Your task to perform on an android device: Search for sushi restaurants on Maps Image 0: 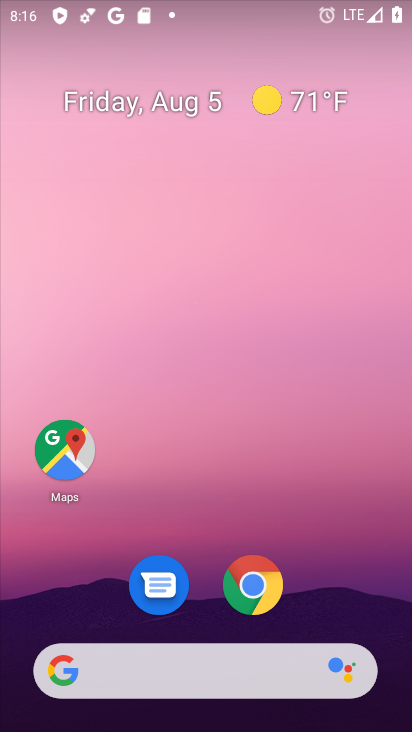
Step 0: click (65, 450)
Your task to perform on an android device: Search for sushi restaurants on Maps Image 1: 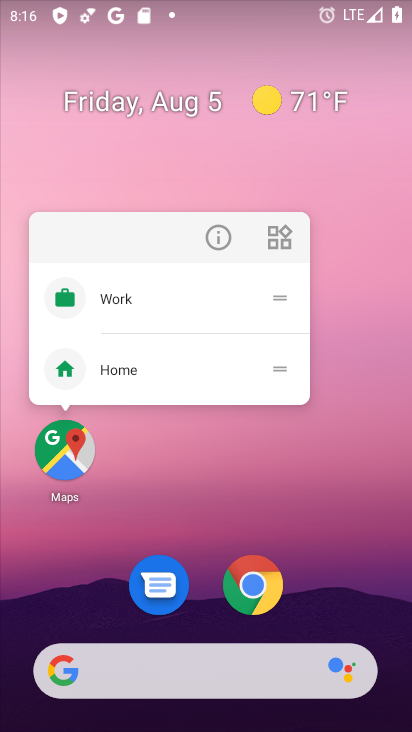
Step 1: click (61, 444)
Your task to perform on an android device: Search for sushi restaurants on Maps Image 2: 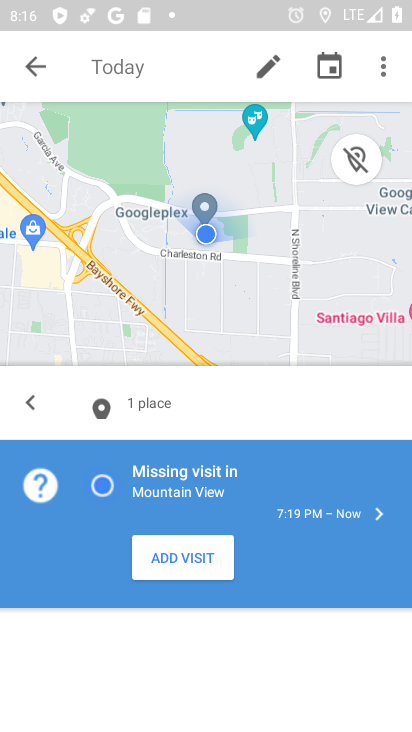
Step 2: click (38, 67)
Your task to perform on an android device: Search for sushi restaurants on Maps Image 3: 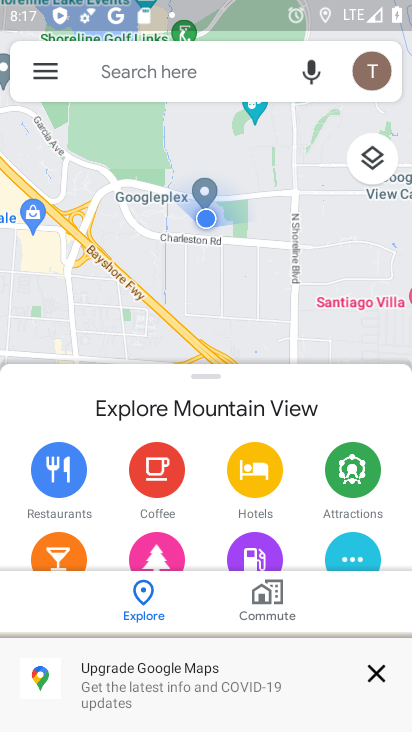
Step 3: click (159, 65)
Your task to perform on an android device: Search for sushi restaurants on Maps Image 4: 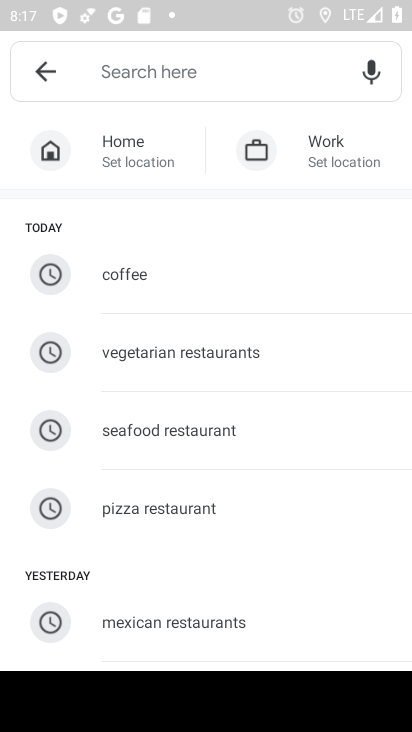
Step 4: drag from (208, 542) to (292, 254)
Your task to perform on an android device: Search for sushi restaurants on Maps Image 5: 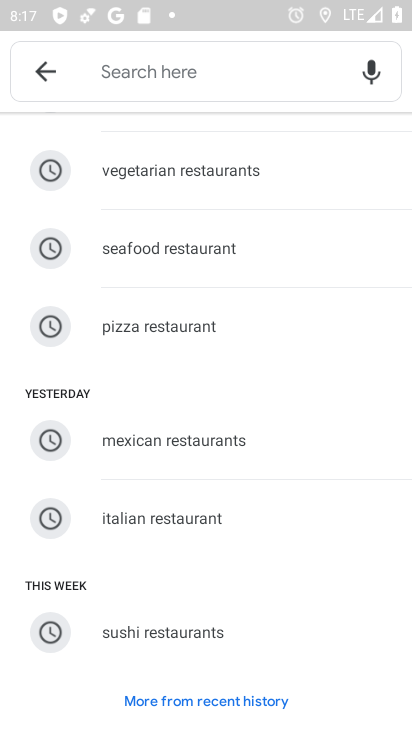
Step 5: click (192, 631)
Your task to perform on an android device: Search for sushi restaurants on Maps Image 6: 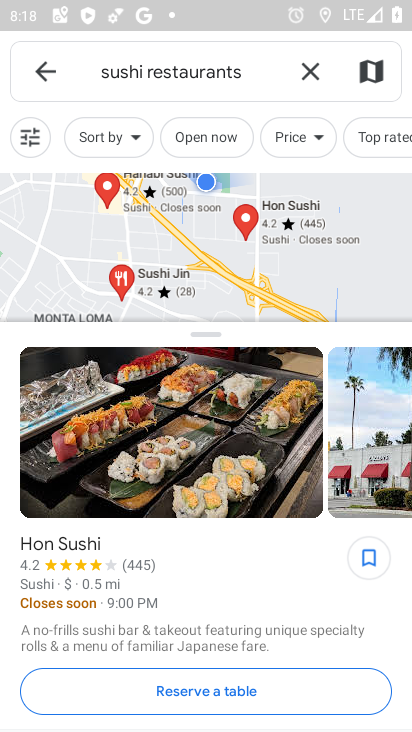
Step 6: task complete